Your task to perform on an android device: set the stopwatch Image 0: 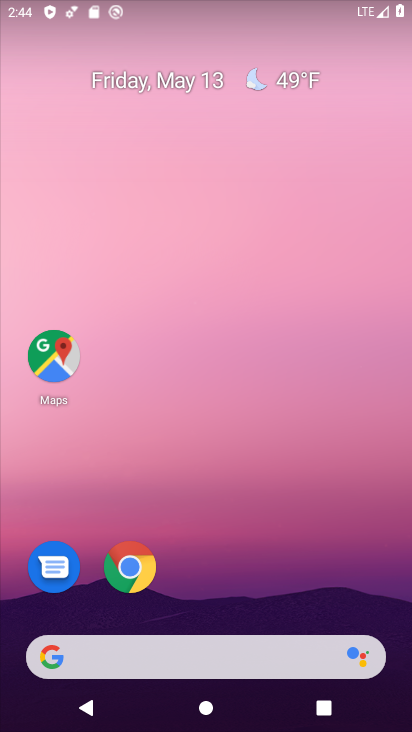
Step 0: drag from (205, 638) to (101, 12)
Your task to perform on an android device: set the stopwatch Image 1: 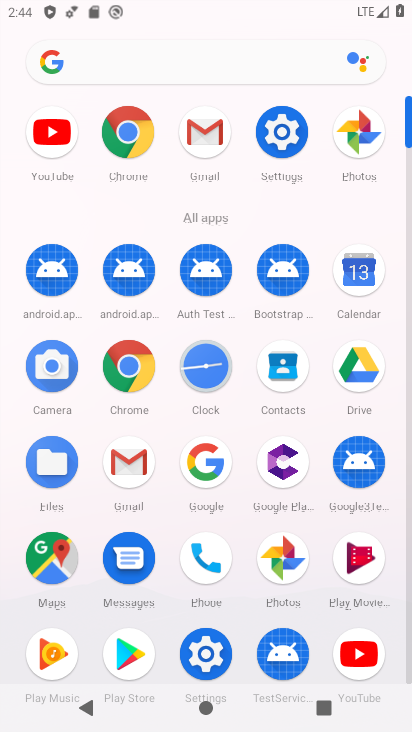
Step 1: click (198, 387)
Your task to perform on an android device: set the stopwatch Image 2: 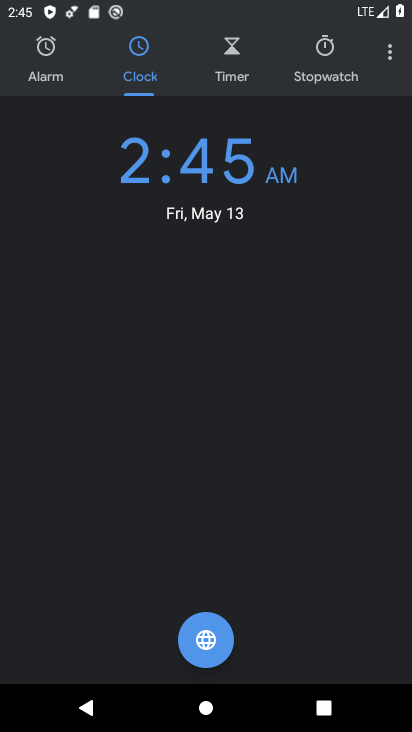
Step 2: click (321, 69)
Your task to perform on an android device: set the stopwatch Image 3: 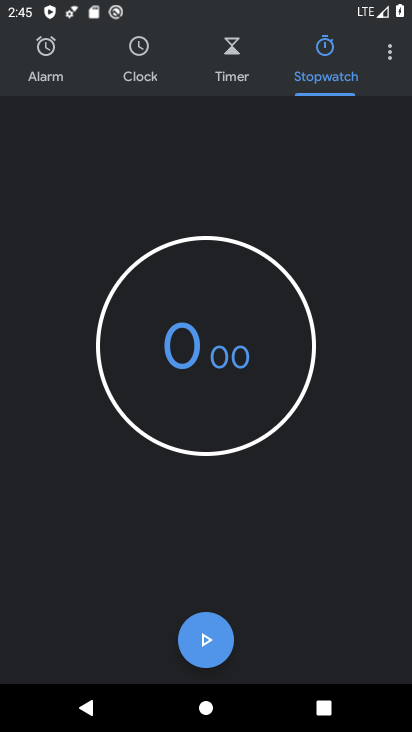
Step 3: task complete